Your task to perform on an android device: toggle notifications settings in the gmail app Image 0: 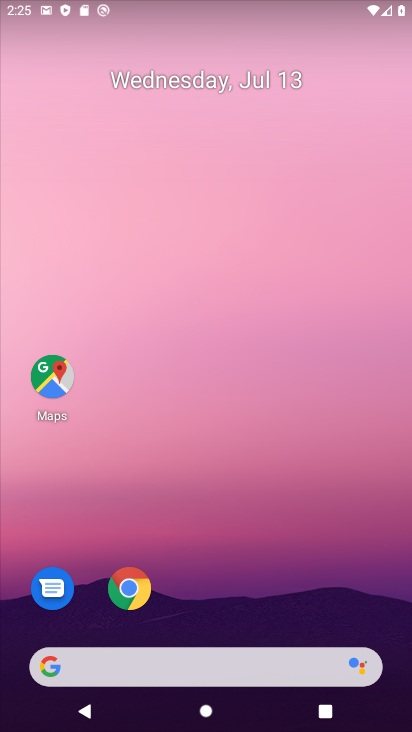
Step 0: drag from (301, 580) to (309, 0)
Your task to perform on an android device: toggle notifications settings in the gmail app Image 1: 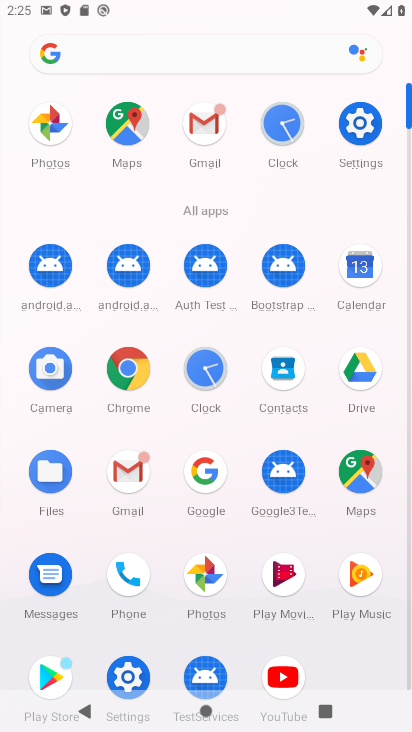
Step 1: click (204, 172)
Your task to perform on an android device: toggle notifications settings in the gmail app Image 2: 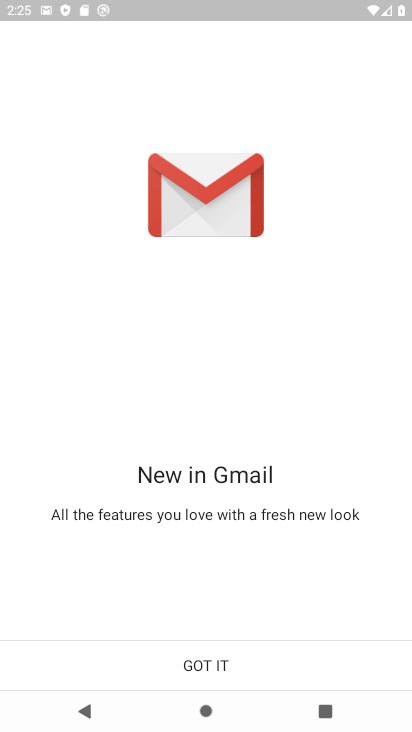
Step 2: click (289, 668)
Your task to perform on an android device: toggle notifications settings in the gmail app Image 3: 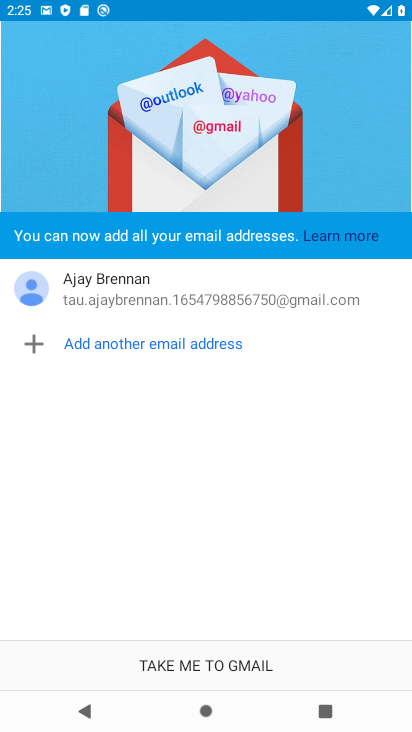
Step 3: click (288, 657)
Your task to perform on an android device: toggle notifications settings in the gmail app Image 4: 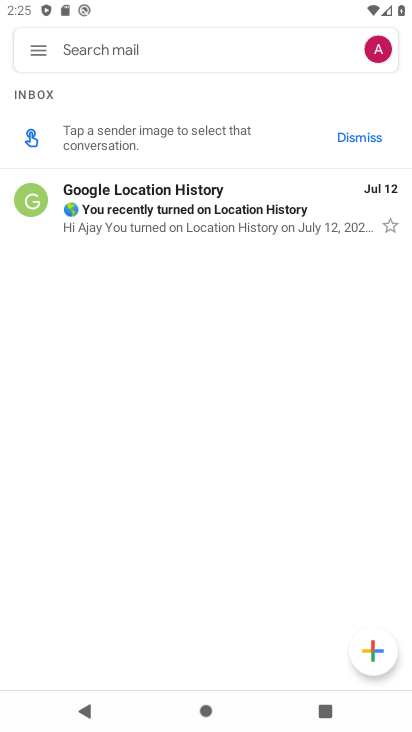
Step 4: click (48, 49)
Your task to perform on an android device: toggle notifications settings in the gmail app Image 5: 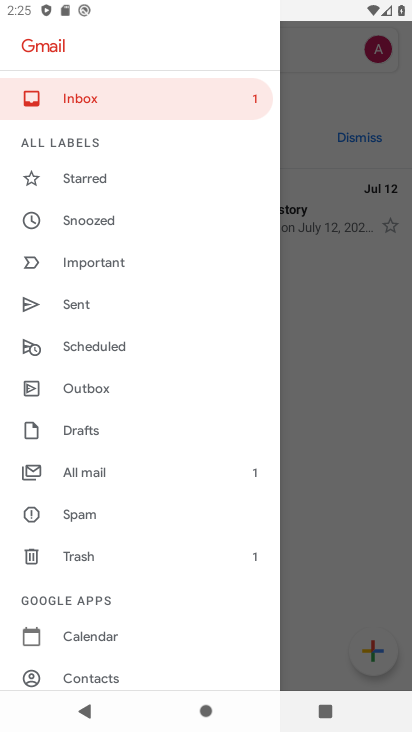
Step 5: drag from (122, 584) to (179, 224)
Your task to perform on an android device: toggle notifications settings in the gmail app Image 6: 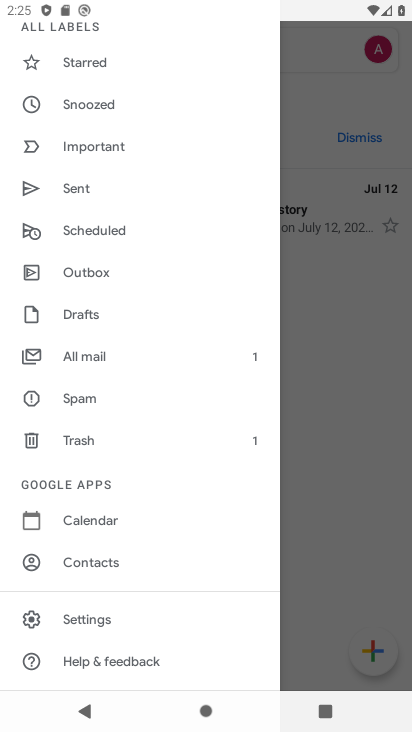
Step 6: click (80, 620)
Your task to perform on an android device: toggle notifications settings in the gmail app Image 7: 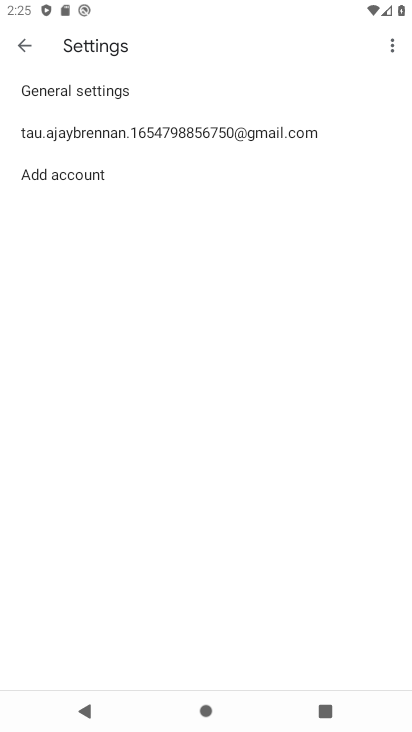
Step 7: click (134, 132)
Your task to perform on an android device: toggle notifications settings in the gmail app Image 8: 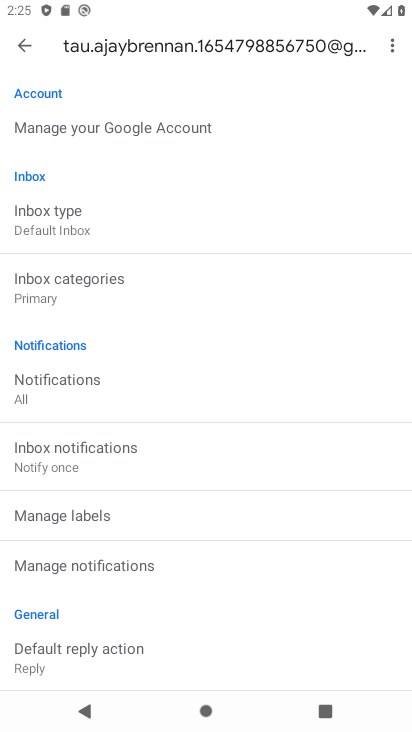
Step 8: click (82, 571)
Your task to perform on an android device: toggle notifications settings in the gmail app Image 9: 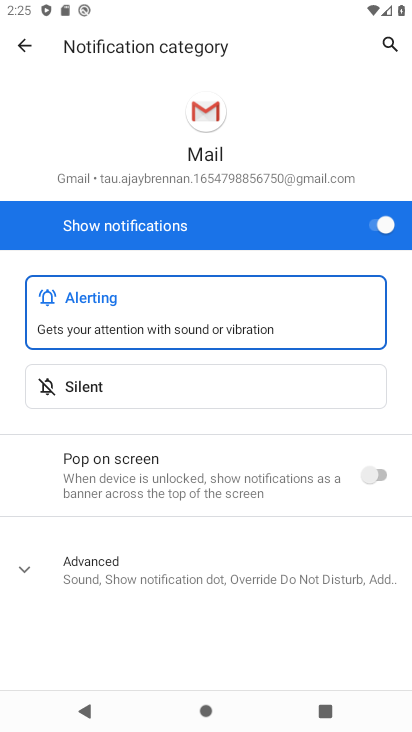
Step 9: click (367, 220)
Your task to perform on an android device: toggle notifications settings in the gmail app Image 10: 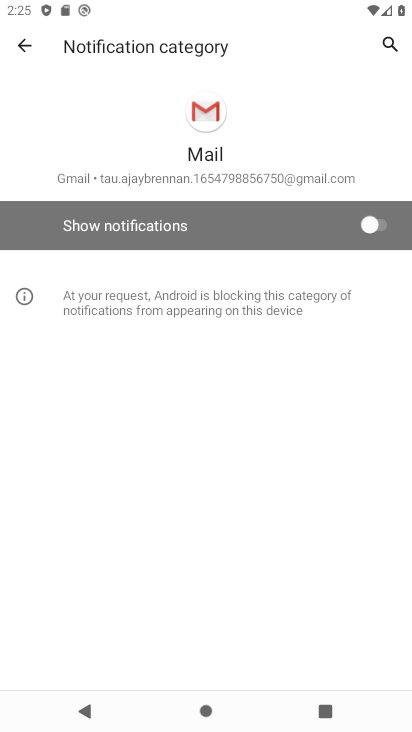
Step 10: task complete